Your task to perform on an android device: Open my contact list Image 0: 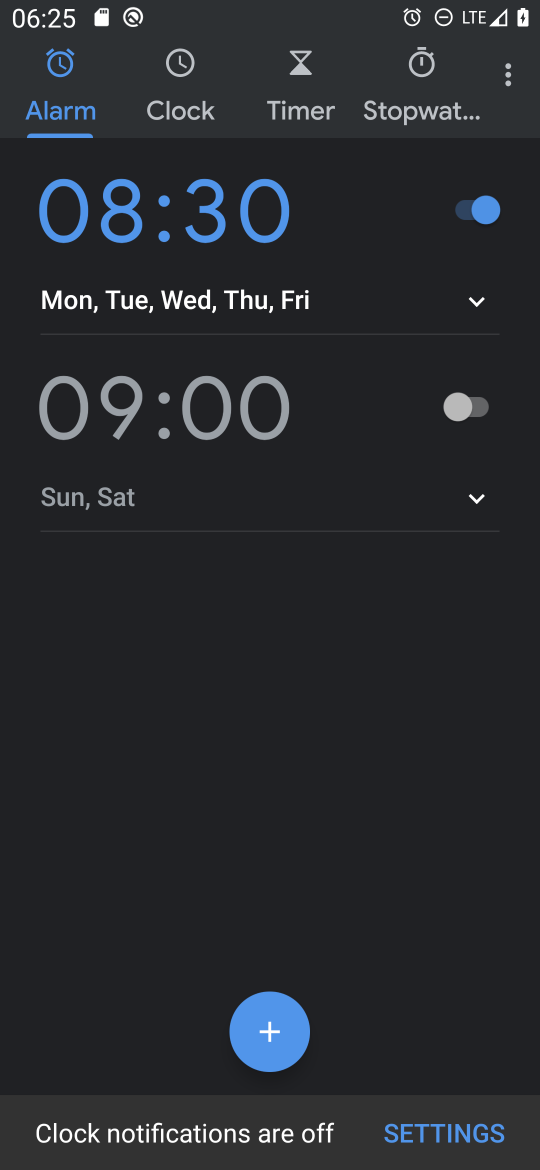
Step 0: press home button
Your task to perform on an android device: Open my contact list Image 1: 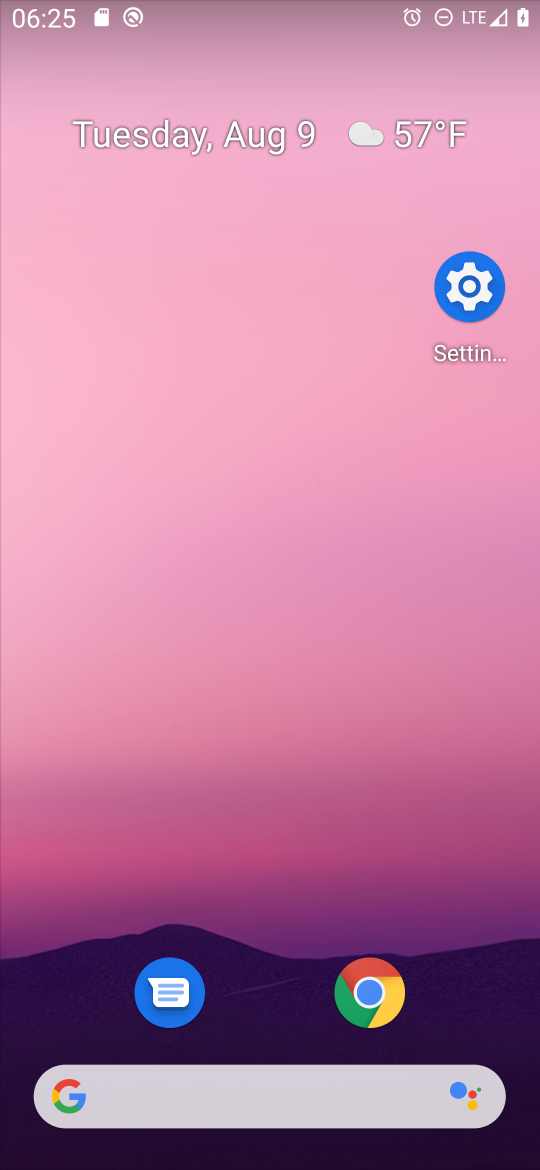
Step 1: drag from (347, 1081) to (281, 22)
Your task to perform on an android device: Open my contact list Image 2: 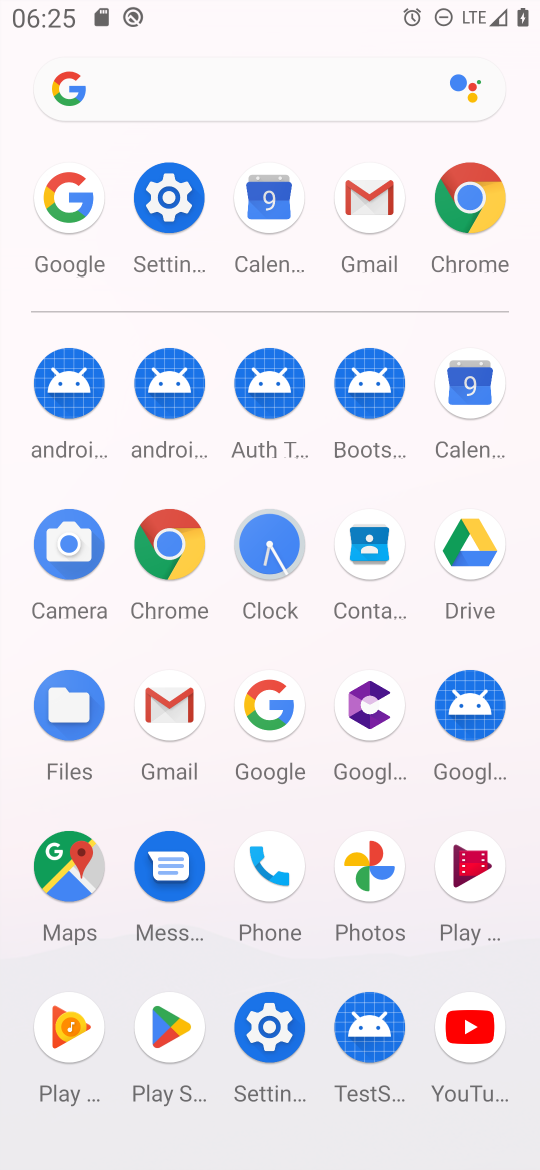
Step 2: click (369, 543)
Your task to perform on an android device: Open my contact list Image 3: 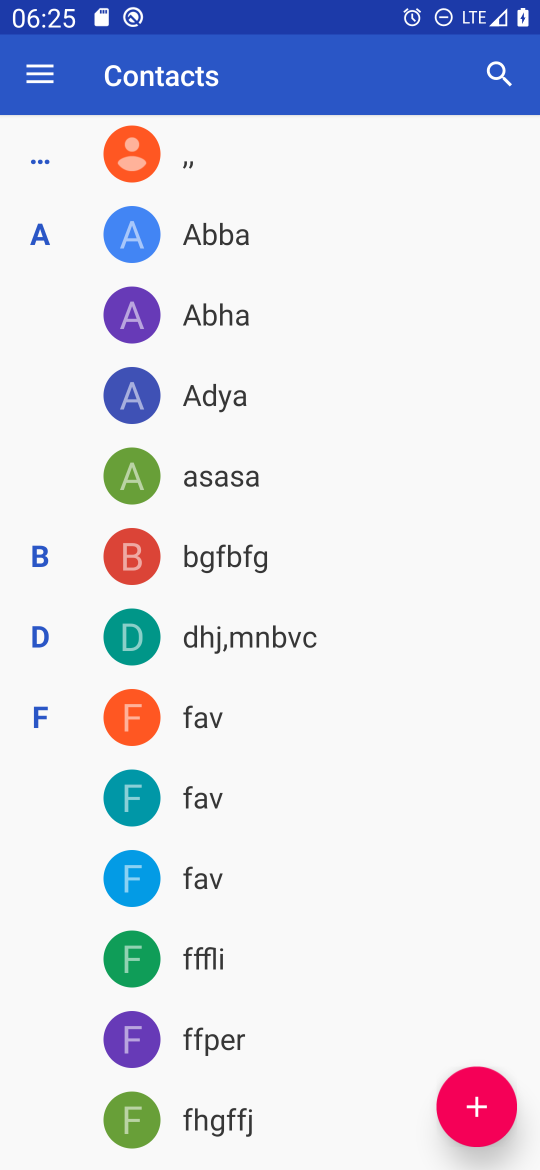
Step 3: task complete